Your task to perform on an android device: turn off picture-in-picture Image 0: 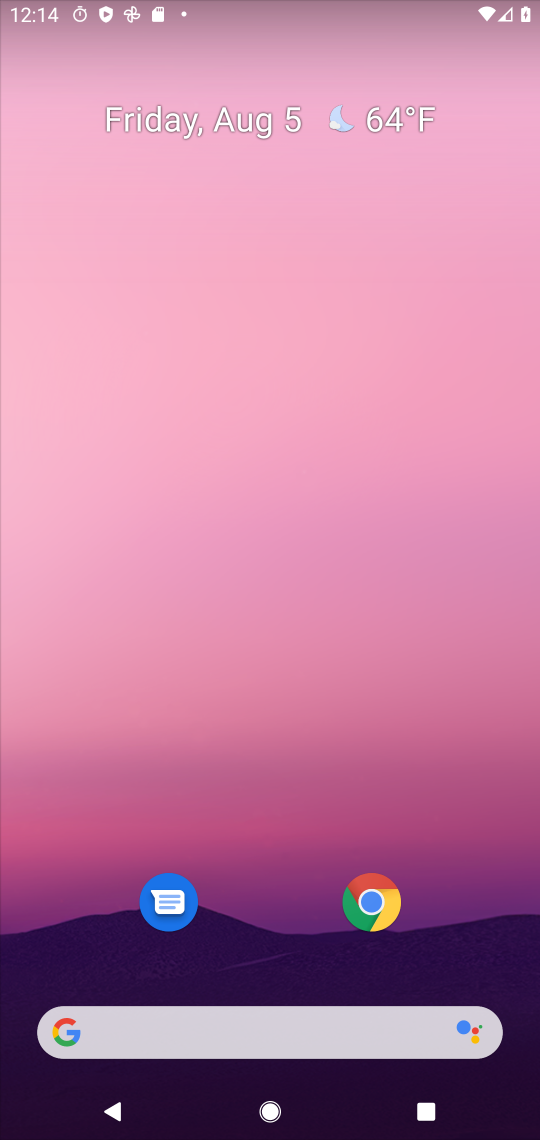
Step 0: click (270, 432)
Your task to perform on an android device: turn off picture-in-picture Image 1: 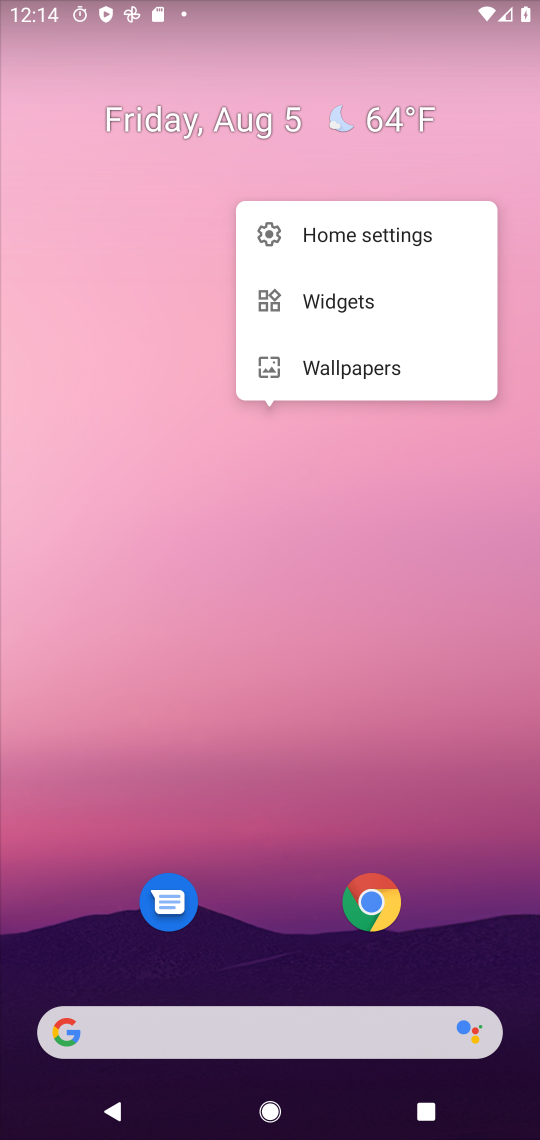
Step 1: click (376, 655)
Your task to perform on an android device: turn off picture-in-picture Image 2: 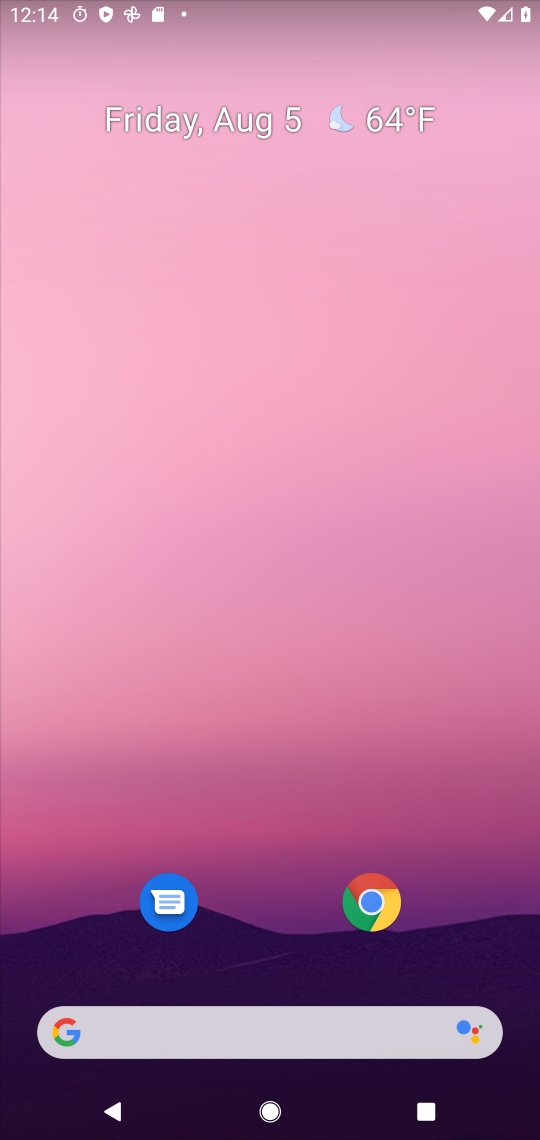
Step 2: drag from (320, 939) to (267, 273)
Your task to perform on an android device: turn off picture-in-picture Image 3: 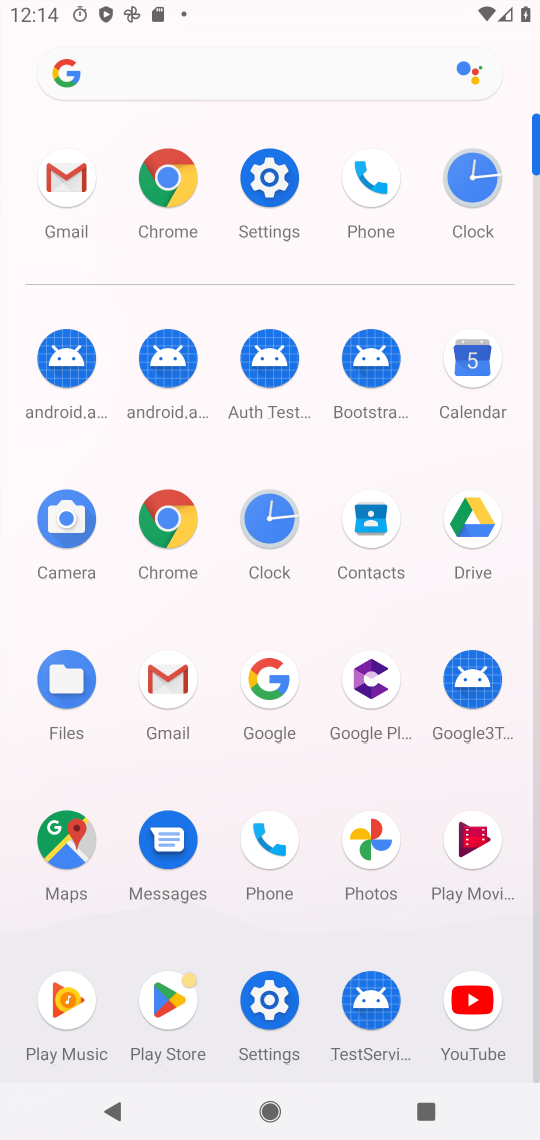
Step 3: click (473, 986)
Your task to perform on an android device: turn off picture-in-picture Image 4: 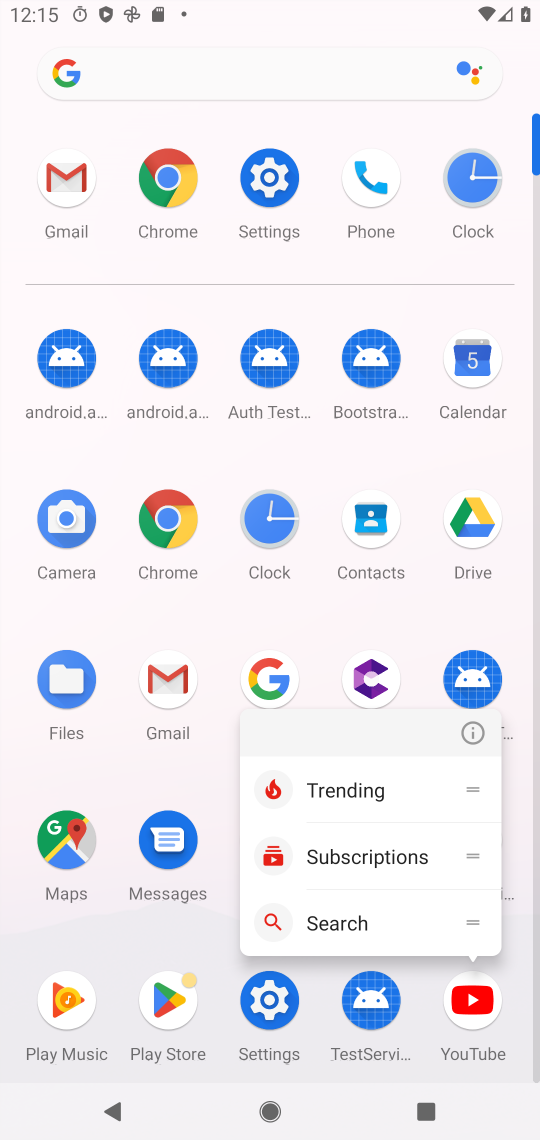
Step 4: click (468, 1001)
Your task to perform on an android device: turn off picture-in-picture Image 5: 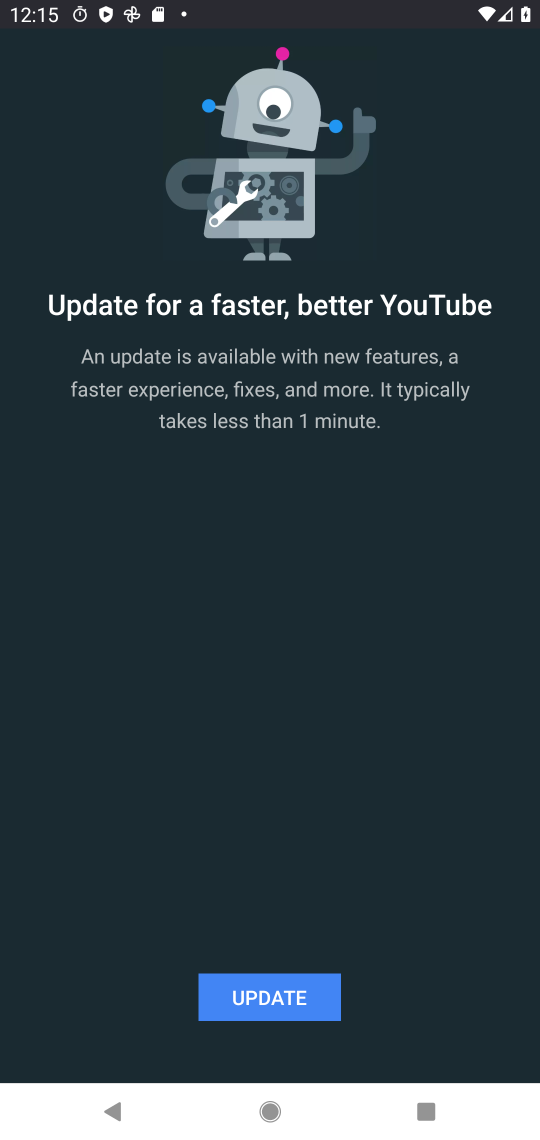
Step 5: click (277, 1006)
Your task to perform on an android device: turn off picture-in-picture Image 6: 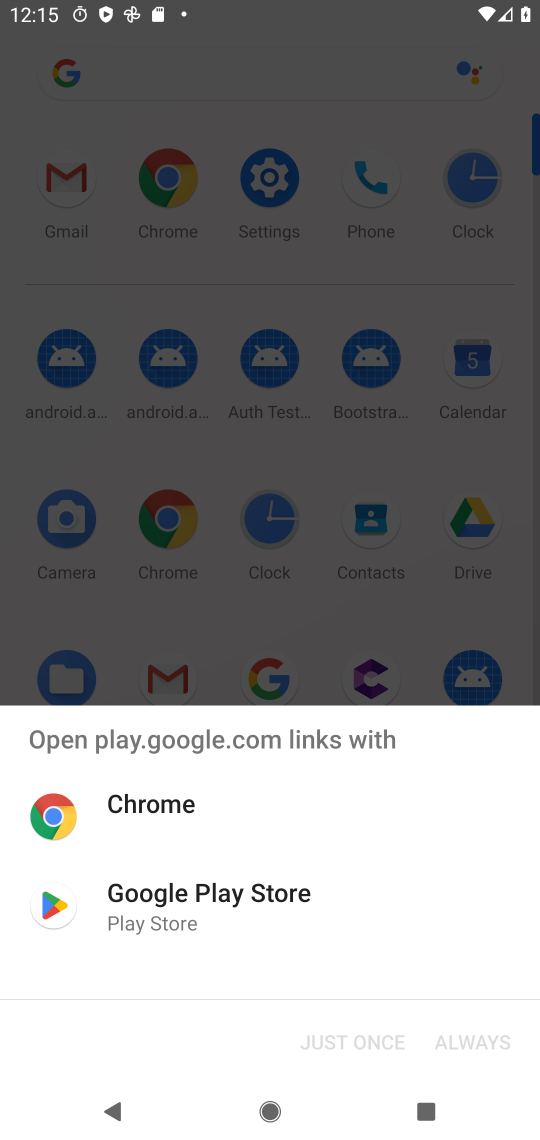
Step 6: click (244, 925)
Your task to perform on an android device: turn off picture-in-picture Image 7: 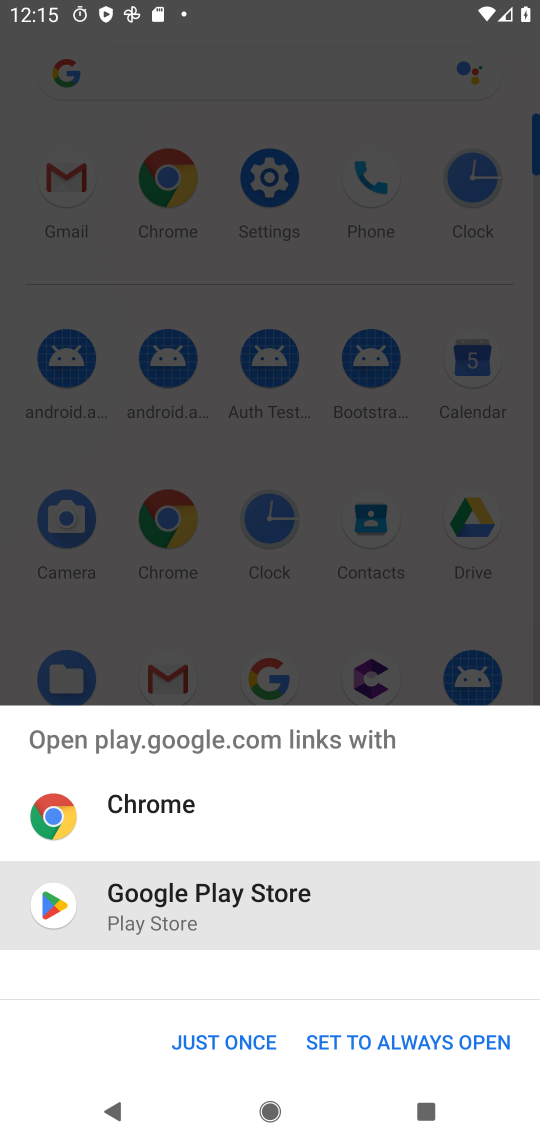
Step 7: click (209, 1047)
Your task to perform on an android device: turn off picture-in-picture Image 8: 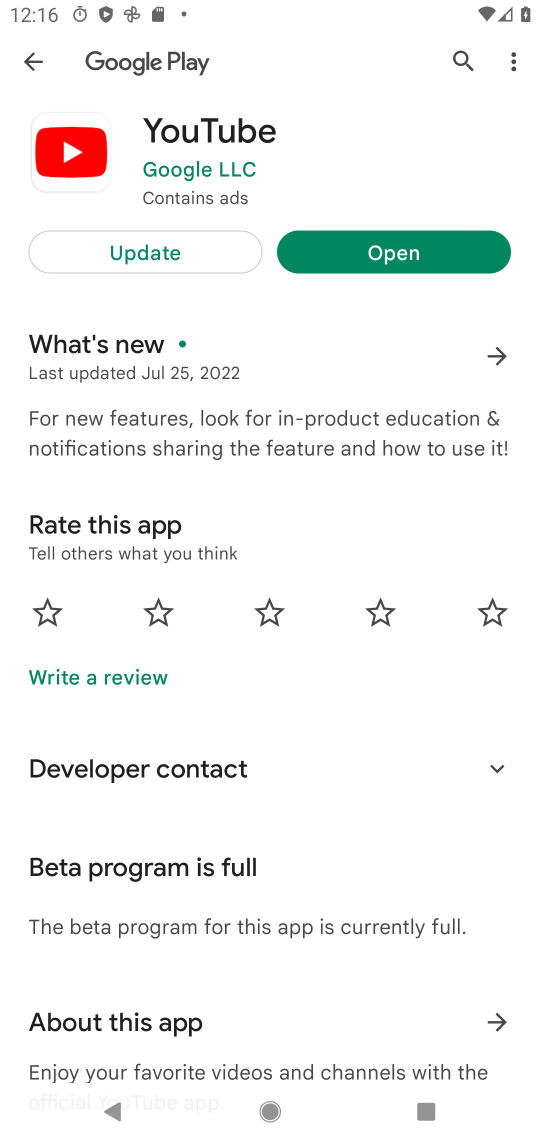
Step 8: click (174, 266)
Your task to perform on an android device: turn off picture-in-picture Image 9: 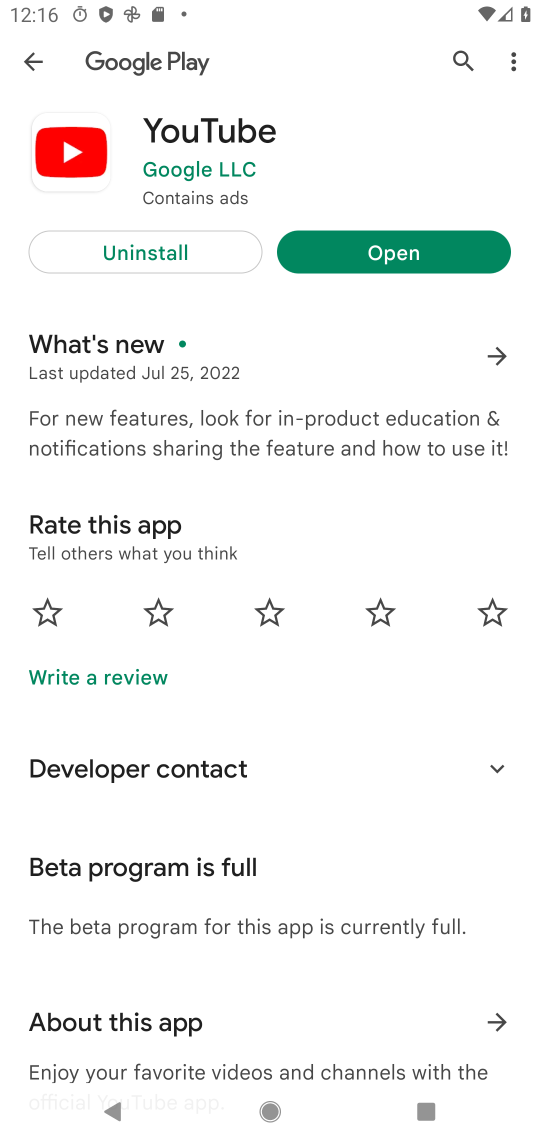
Step 9: click (407, 252)
Your task to perform on an android device: turn off picture-in-picture Image 10: 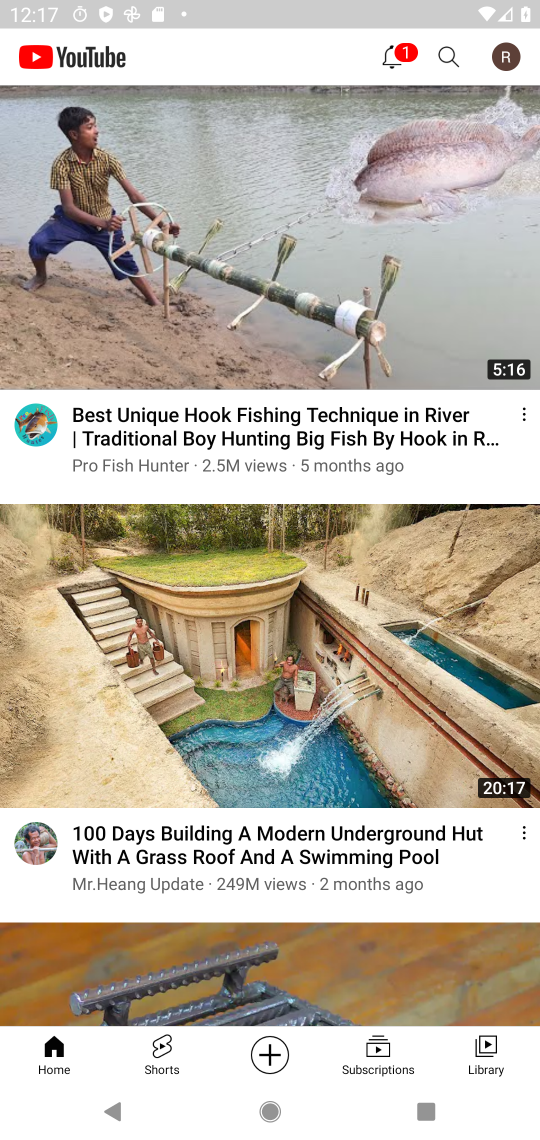
Step 10: click (502, 56)
Your task to perform on an android device: turn off picture-in-picture Image 11: 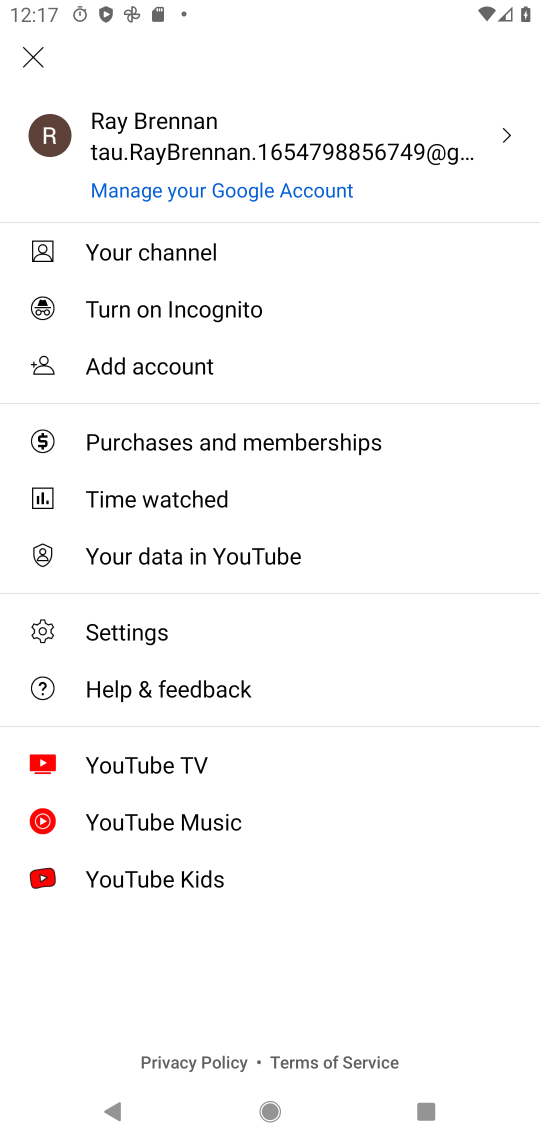
Step 11: click (202, 266)
Your task to perform on an android device: turn off picture-in-picture Image 12: 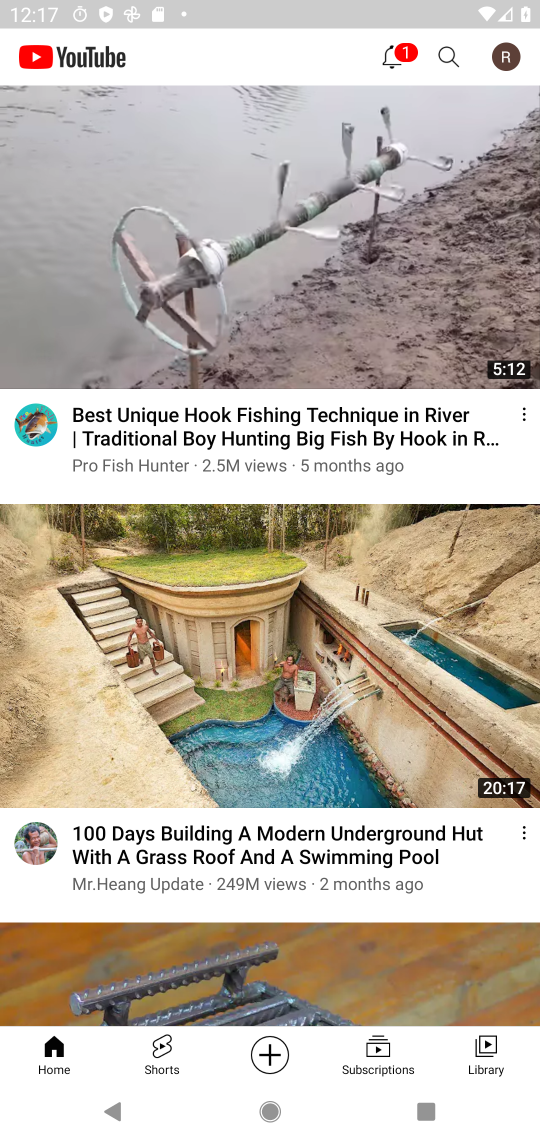
Step 12: click (504, 54)
Your task to perform on an android device: turn off picture-in-picture Image 13: 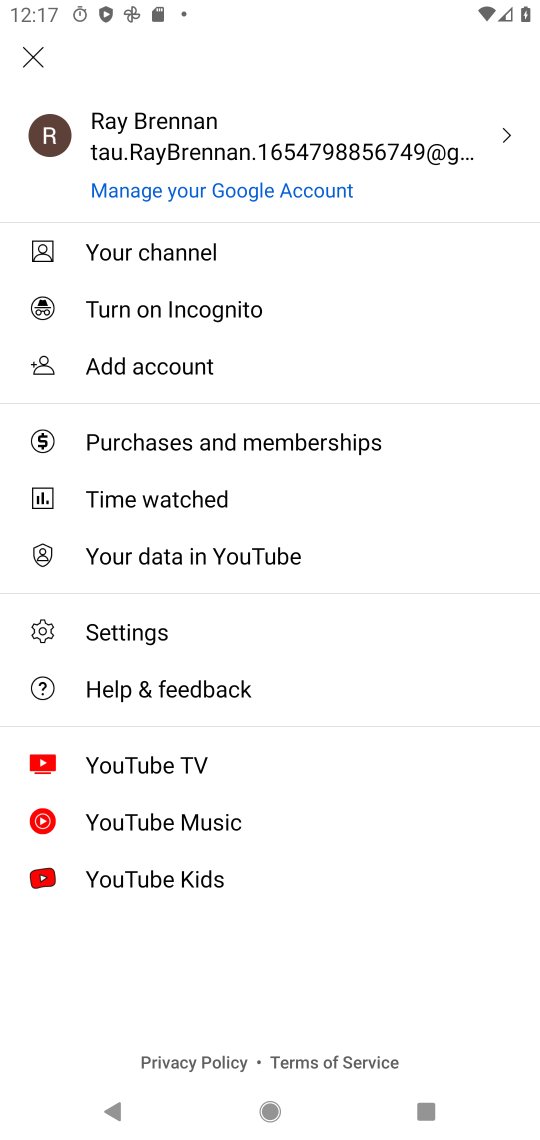
Step 13: click (186, 257)
Your task to perform on an android device: turn off picture-in-picture Image 14: 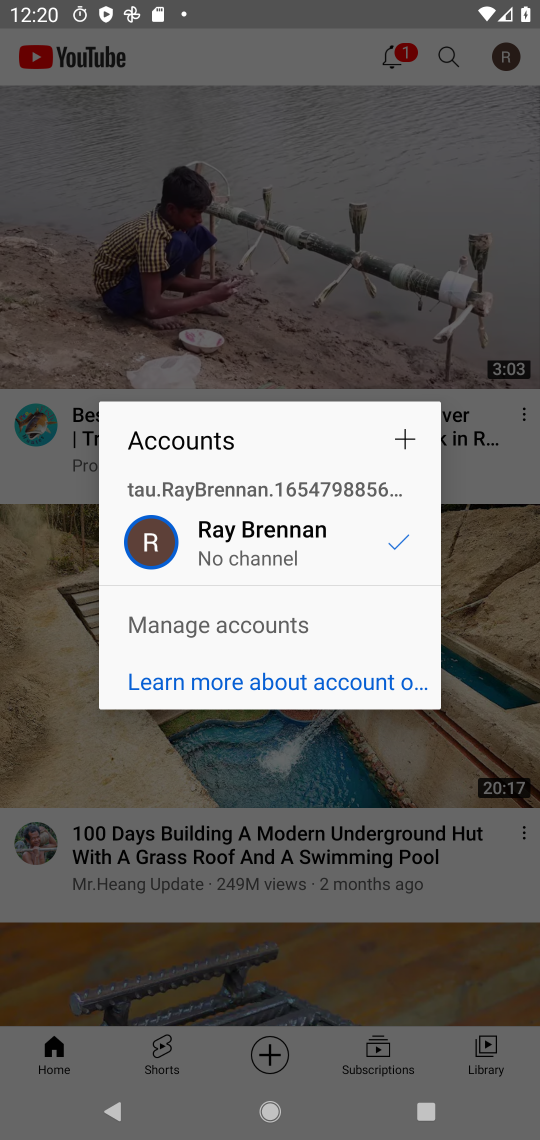
Step 14: task complete